Your task to perform on an android device: open sync settings in chrome Image 0: 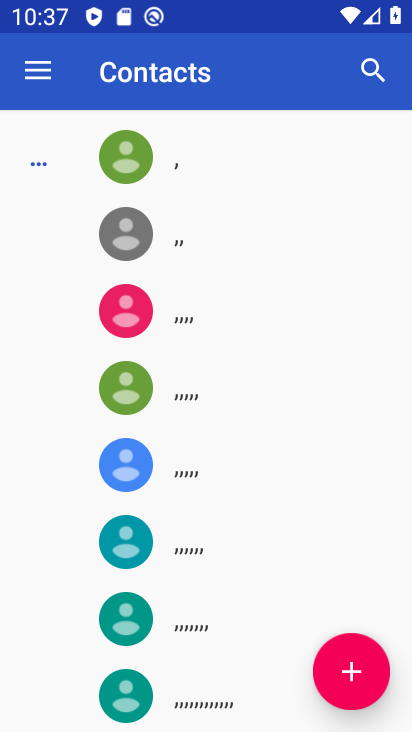
Step 0: press home button
Your task to perform on an android device: open sync settings in chrome Image 1: 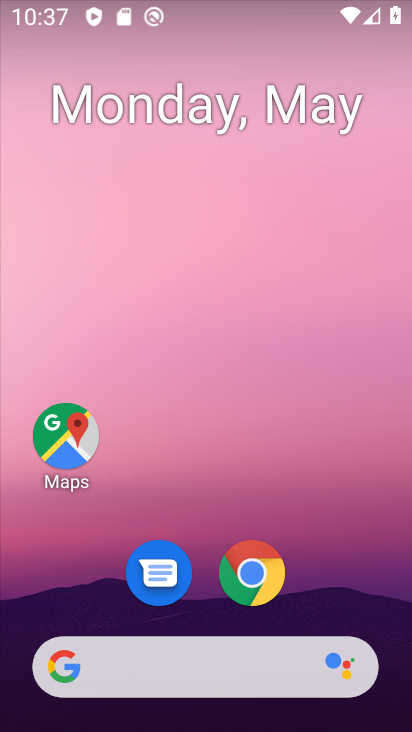
Step 1: click (268, 573)
Your task to perform on an android device: open sync settings in chrome Image 2: 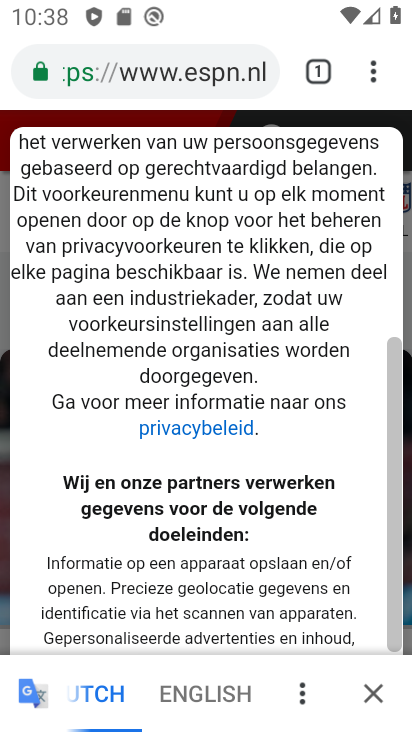
Step 2: click (375, 67)
Your task to perform on an android device: open sync settings in chrome Image 3: 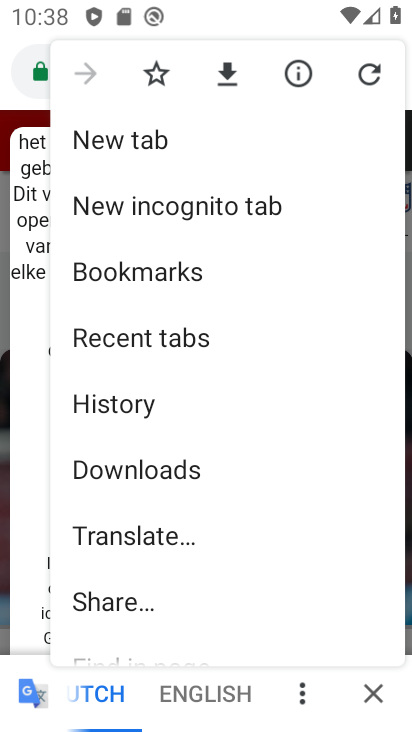
Step 3: drag from (243, 569) to (204, 210)
Your task to perform on an android device: open sync settings in chrome Image 4: 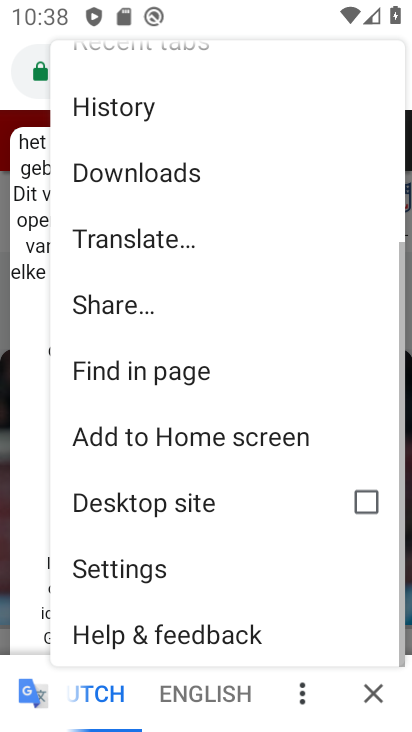
Step 4: click (171, 571)
Your task to perform on an android device: open sync settings in chrome Image 5: 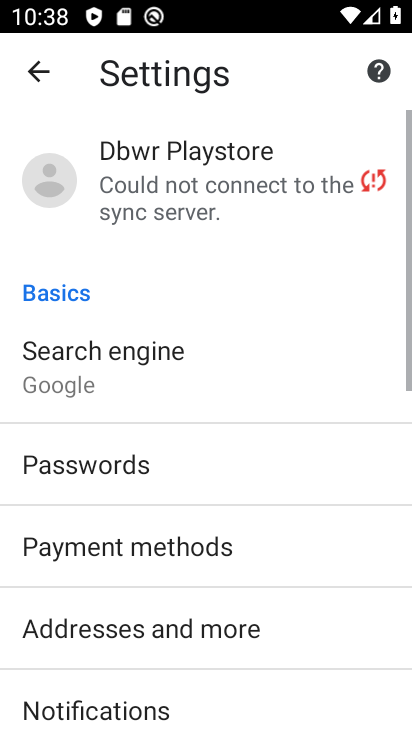
Step 5: drag from (222, 560) to (215, 133)
Your task to perform on an android device: open sync settings in chrome Image 6: 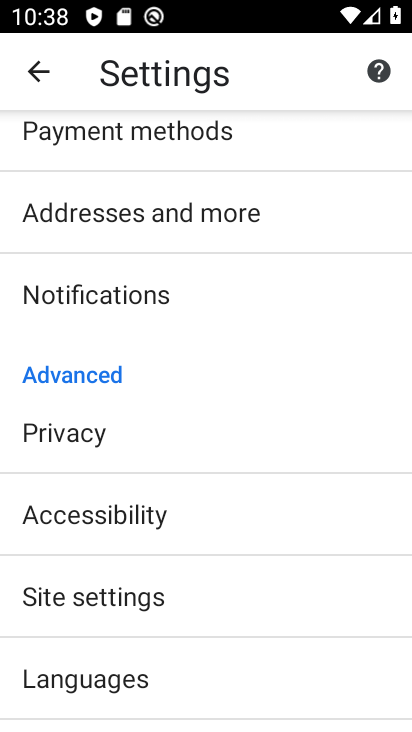
Step 6: click (190, 590)
Your task to perform on an android device: open sync settings in chrome Image 7: 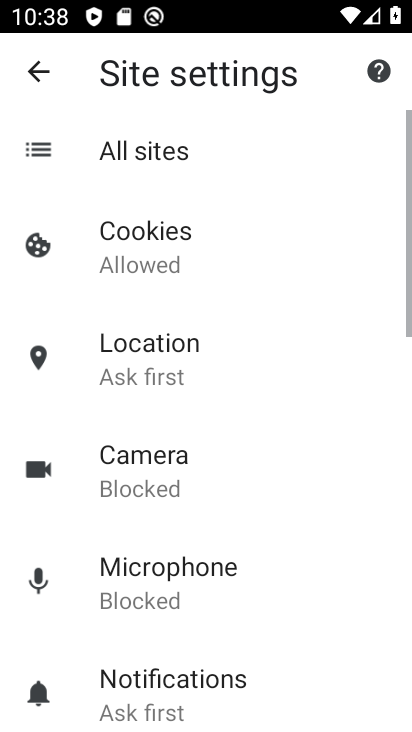
Step 7: drag from (239, 531) to (217, 116)
Your task to perform on an android device: open sync settings in chrome Image 8: 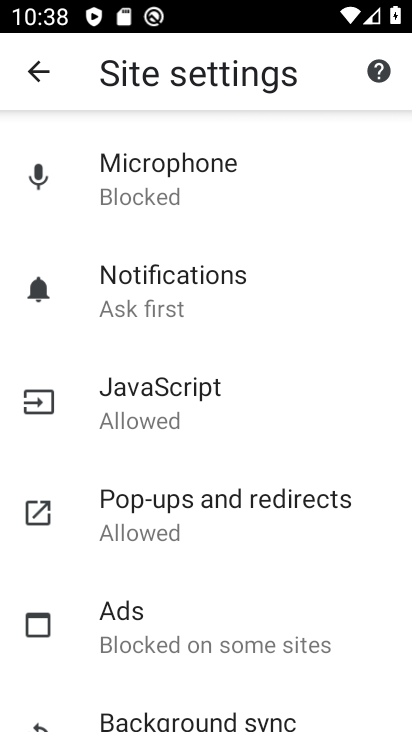
Step 8: drag from (215, 551) to (204, 228)
Your task to perform on an android device: open sync settings in chrome Image 9: 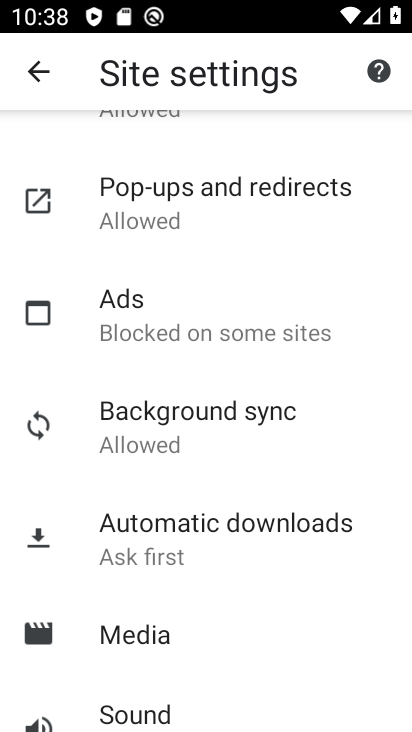
Step 9: click (234, 422)
Your task to perform on an android device: open sync settings in chrome Image 10: 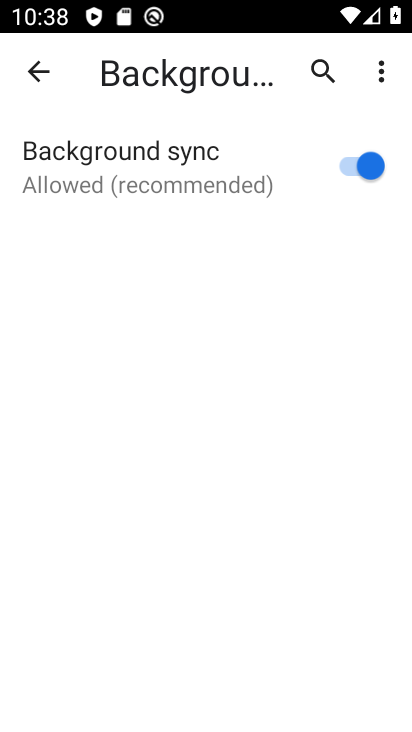
Step 10: task complete